Your task to perform on an android device: turn notification dots off Image 0: 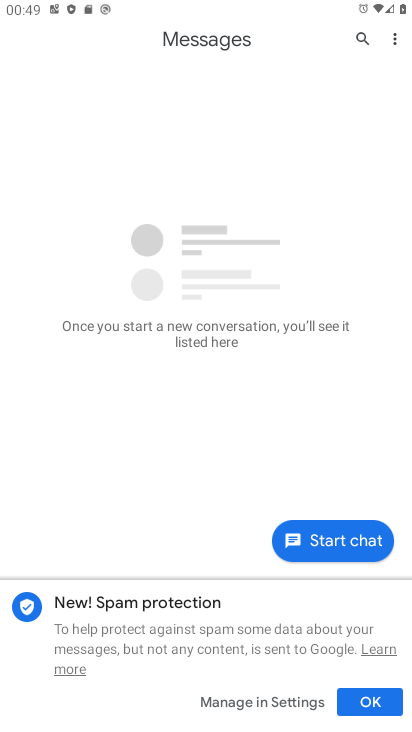
Step 0: press home button
Your task to perform on an android device: turn notification dots off Image 1: 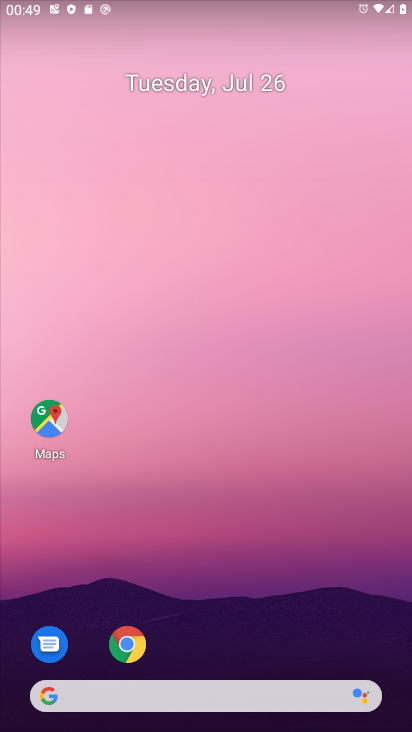
Step 1: drag from (240, 645) to (226, 187)
Your task to perform on an android device: turn notification dots off Image 2: 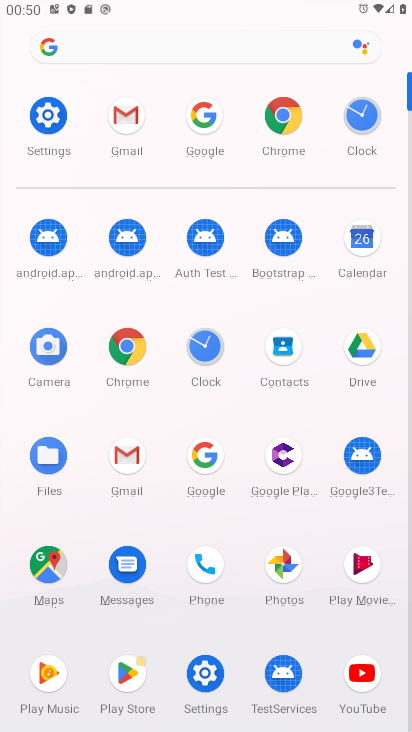
Step 2: click (48, 114)
Your task to perform on an android device: turn notification dots off Image 3: 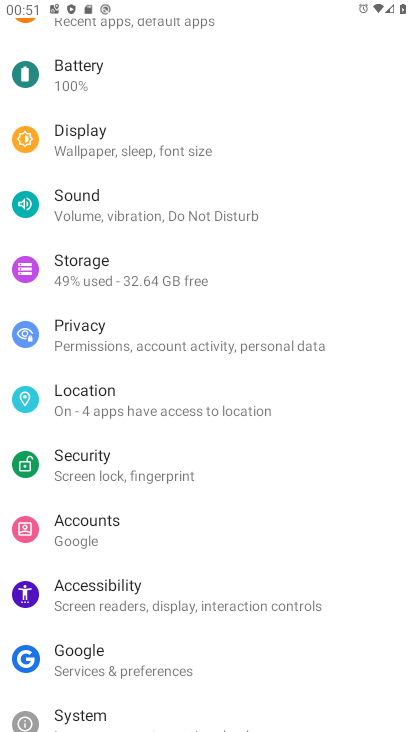
Step 3: drag from (172, 53) to (222, 489)
Your task to perform on an android device: turn notification dots off Image 4: 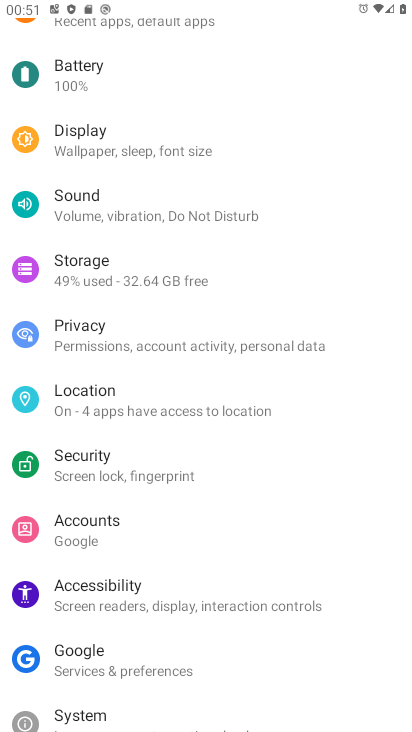
Step 4: drag from (152, 170) to (204, 544)
Your task to perform on an android device: turn notification dots off Image 5: 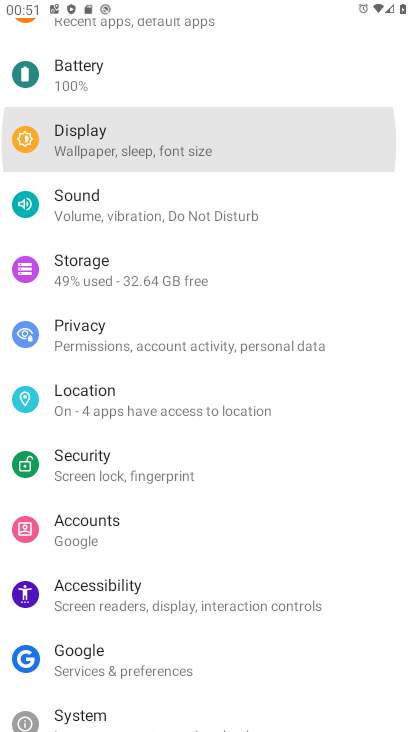
Step 5: drag from (178, 274) to (178, 417)
Your task to perform on an android device: turn notification dots off Image 6: 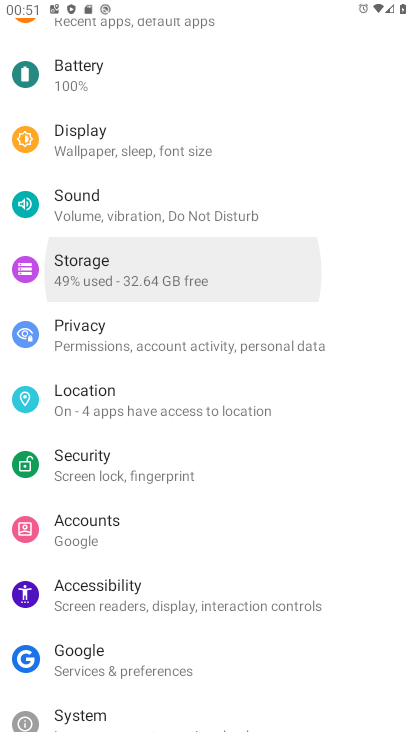
Step 6: drag from (195, 175) to (226, 513)
Your task to perform on an android device: turn notification dots off Image 7: 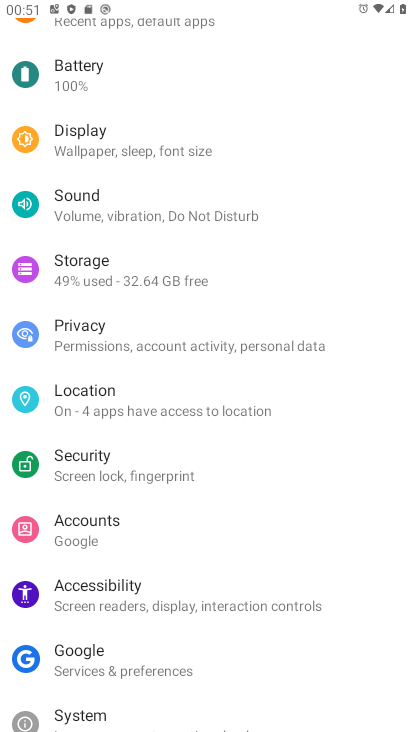
Step 7: drag from (168, 189) to (158, 578)
Your task to perform on an android device: turn notification dots off Image 8: 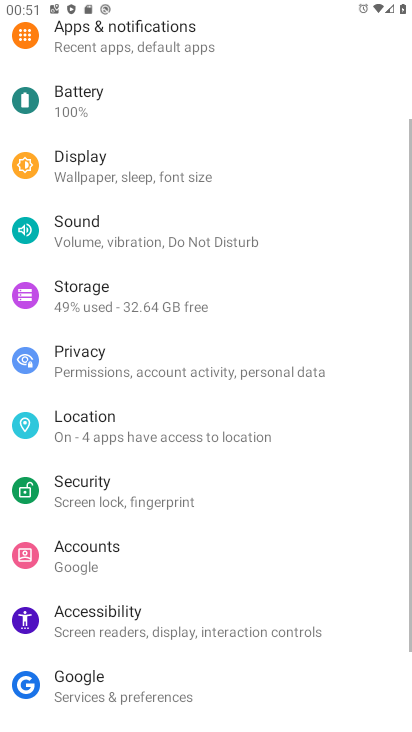
Step 8: drag from (139, 254) to (175, 560)
Your task to perform on an android device: turn notification dots off Image 9: 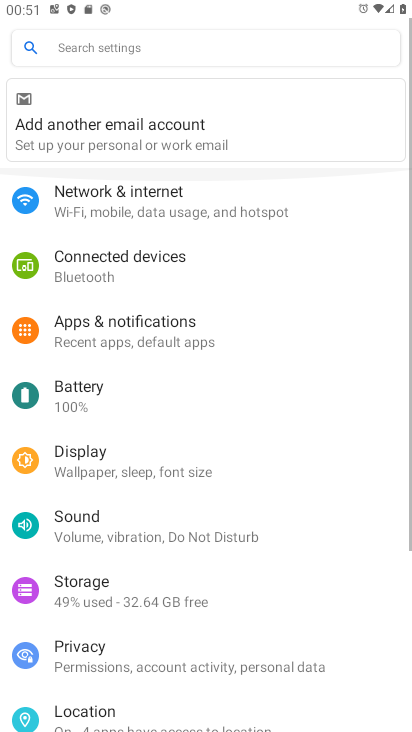
Step 9: drag from (244, 250) to (237, 486)
Your task to perform on an android device: turn notification dots off Image 10: 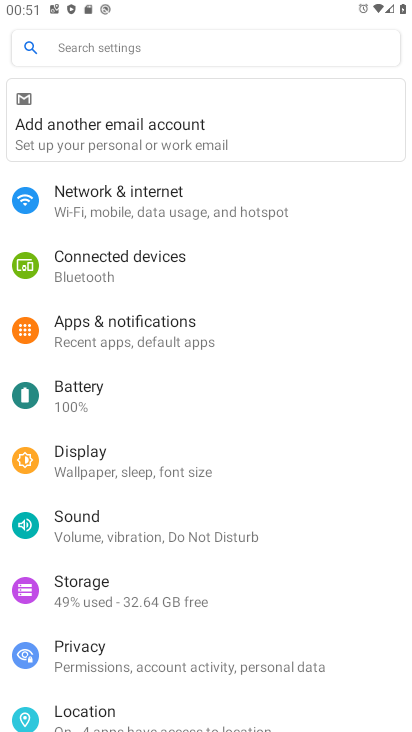
Step 10: click (129, 39)
Your task to perform on an android device: turn notification dots off Image 11: 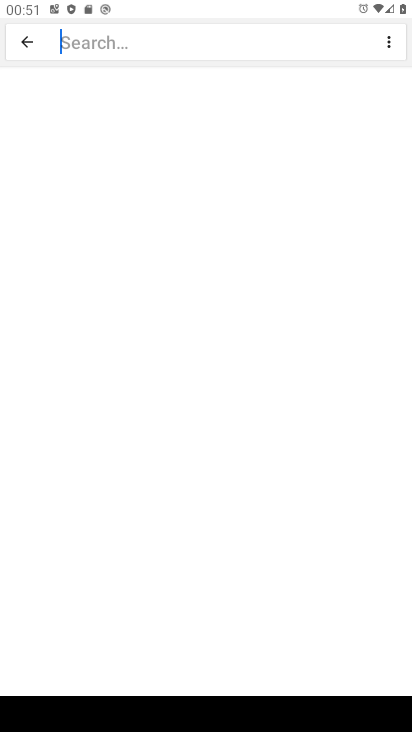
Step 11: click (245, 40)
Your task to perform on an android device: turn notification dots off Image 12: 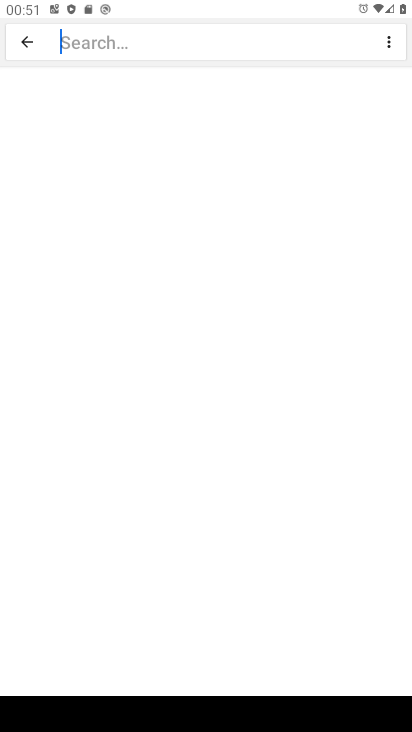
Step 12: type "notification dots "
Your task to perform on an android device: turn notification dots off Image 13: 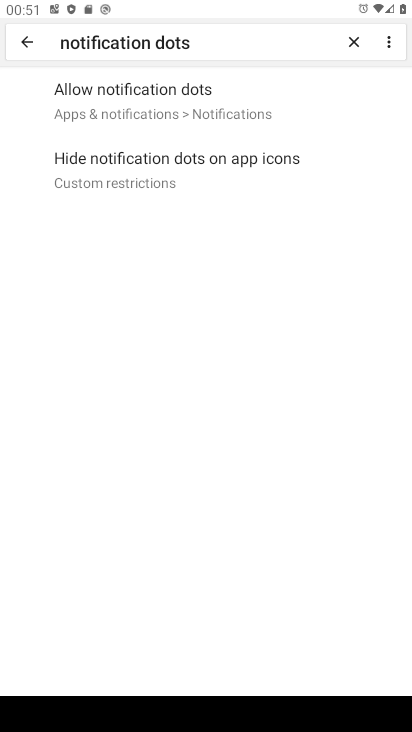
Step 13: click (208, 110)
Your task to perform on an android device: turn notification dots off Image 14: 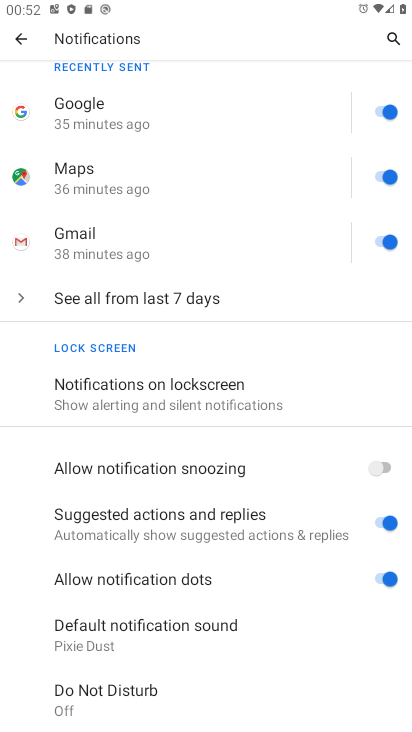
Step 14: click (388, 570)
Your task to perform on an android device: turn notification dots off Image 15: 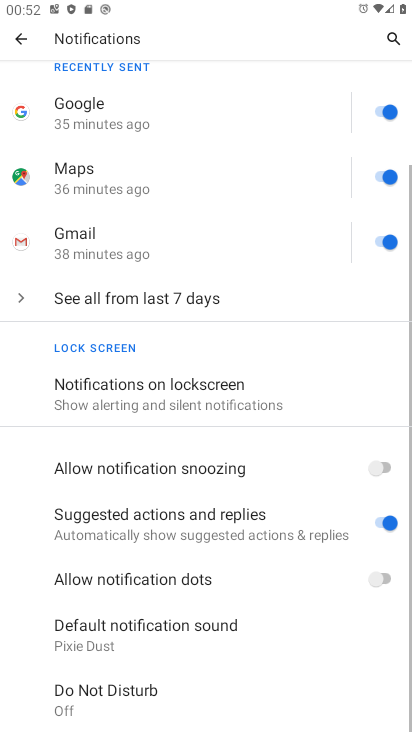
Step 15: task complete